Your task to perform on an android device: change the clock display to analog Image 0: 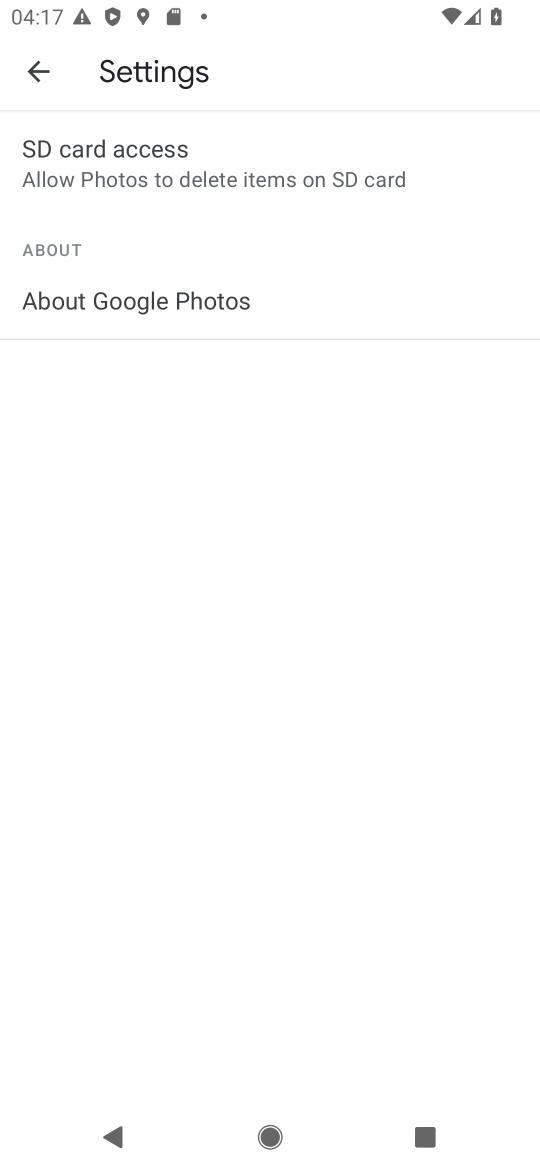
Step 0: press home button
Your task to perform on an android device: change the clock display to analog Image 1: 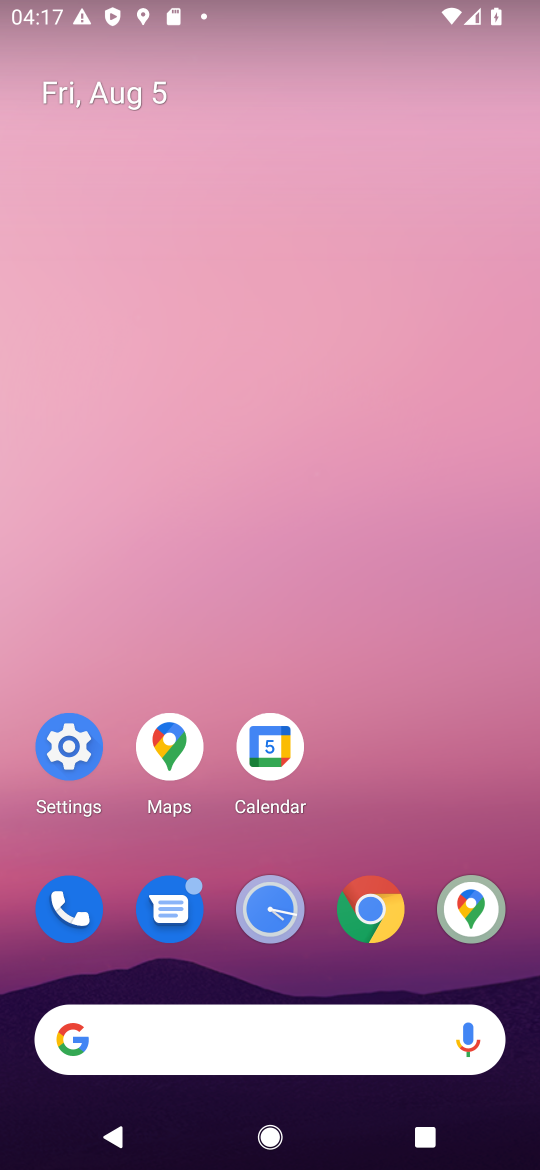
Step 1: click (272, 907)
Your task to perform on an android device: change the clock display to analog Image 2: 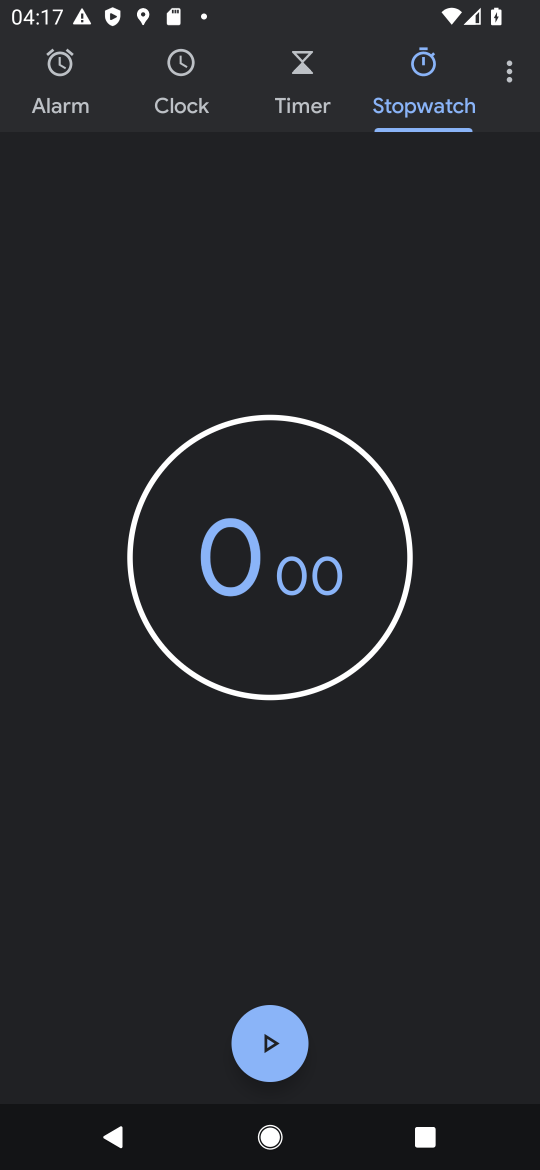
Step 2: click (510, 75)
Your task to perform on an android device: change the clock display to analog Image 3: 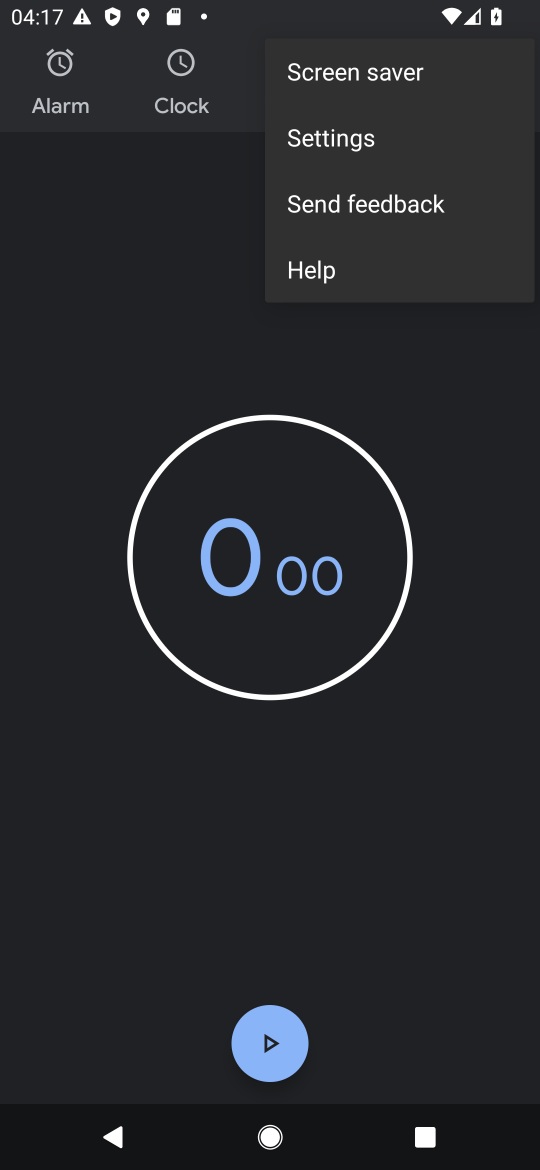
Step 3: click (360, 132)
Your task to perform on an android device: change the clock display to analog Image 4: 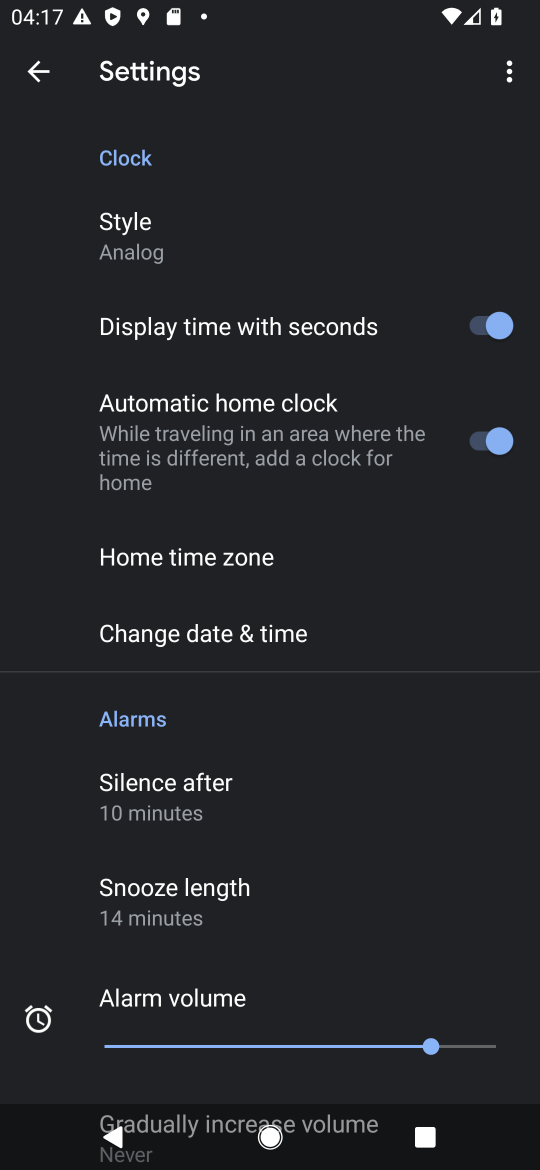
Step 4: click (143, 222)
Your task to perform on an android device: change the clock display to analog Image 5: 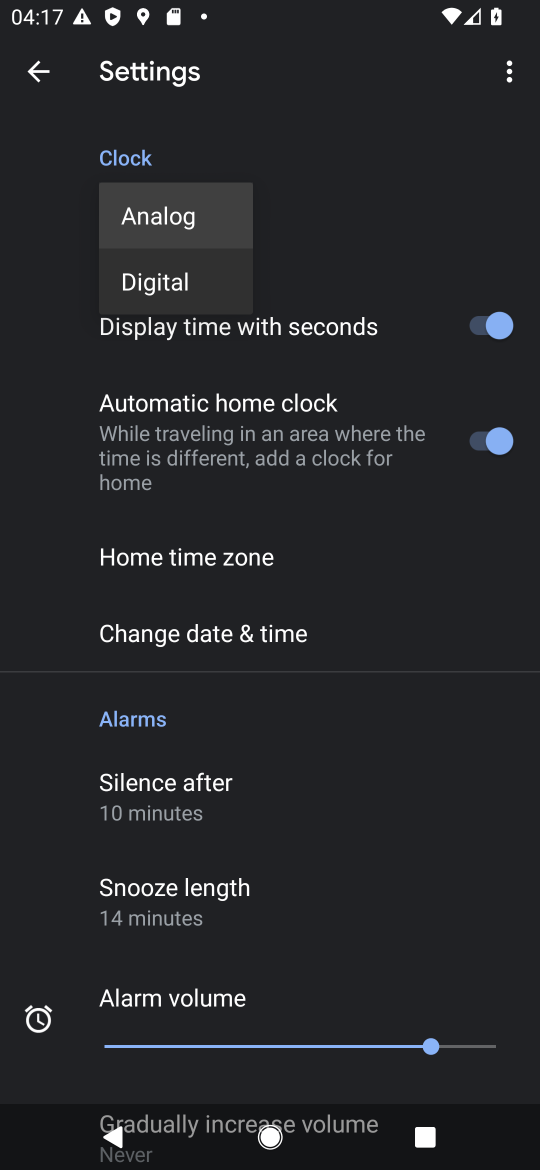
Step 5: task complete